Your task to perform on an android device: toggle location history Image 0: 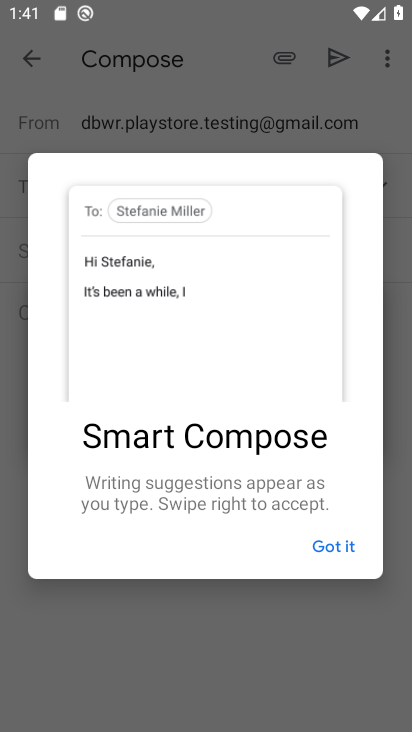
Step 0: press home button
Your task to perform on an android device: toggle location history Image 1: 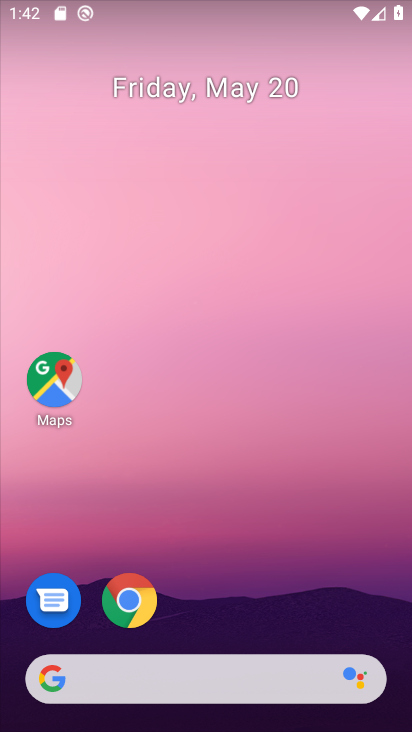
Step 1: drag from (317, 552) to (206, 8)
Your task to perform on an android device: toggle location history Image 2: 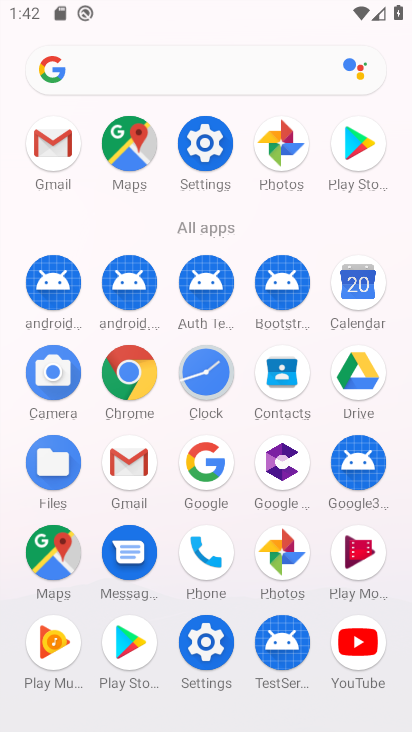
Step 2: click (206, 149)
Your task to perform on an android device: toggle location history Image 3: 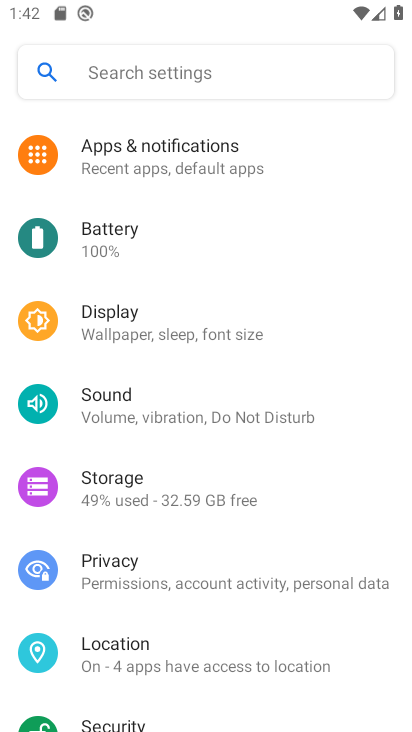
Step 3: click (222, 654)
Your task to perform on an android device: toggle location history Image 4: 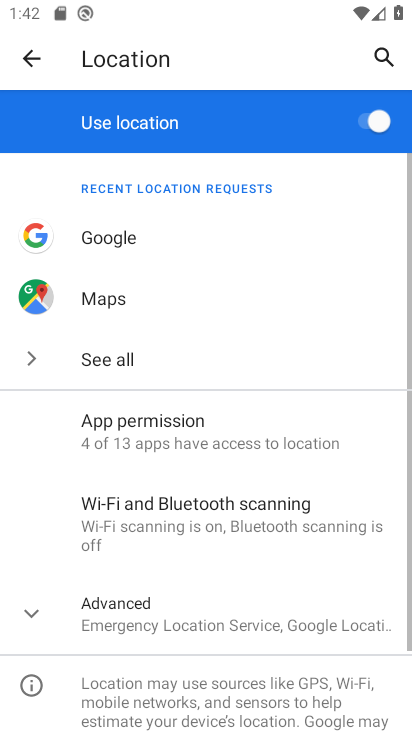
Step 4: click (225, 618)
Your task to perform on an android device: toggle location history Image 5: 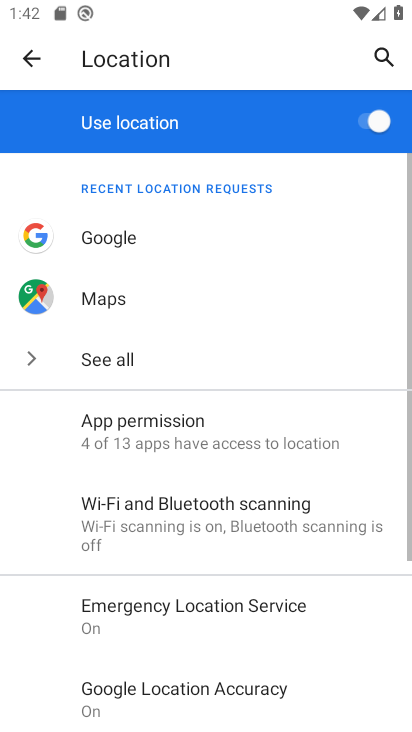
Step 5: drag from (242, 629) to (232, 251)
Your task to perform on an android device: toggle location history Image 6: 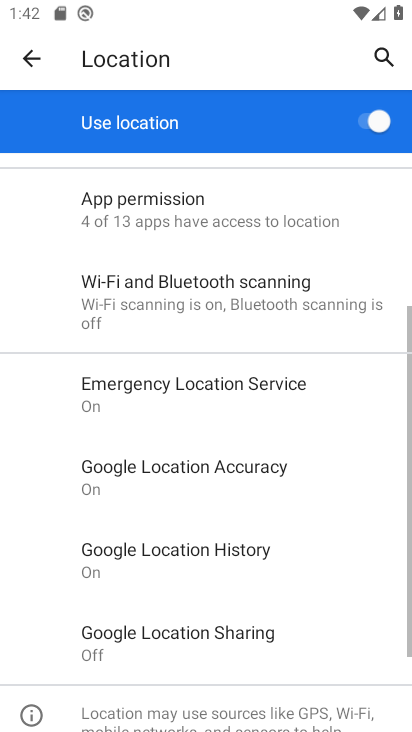
Step 6: click (230, 559)
Your task to perform on an android device: toggle location history Image 7: 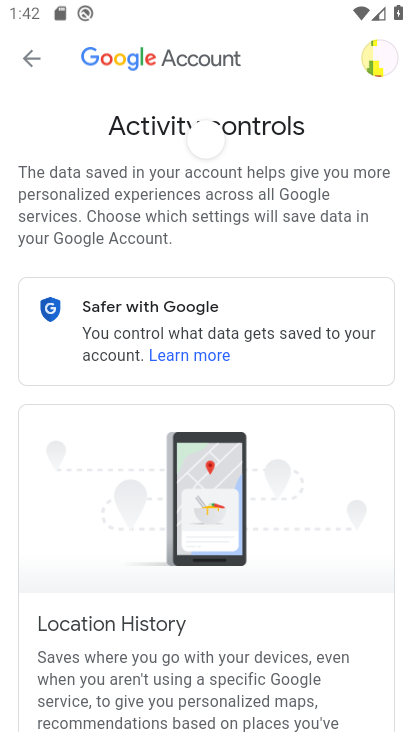
Step 7: drag from (259, 562) to (204, 75)
Your task to perform on an android device: toggle location history Image 8: 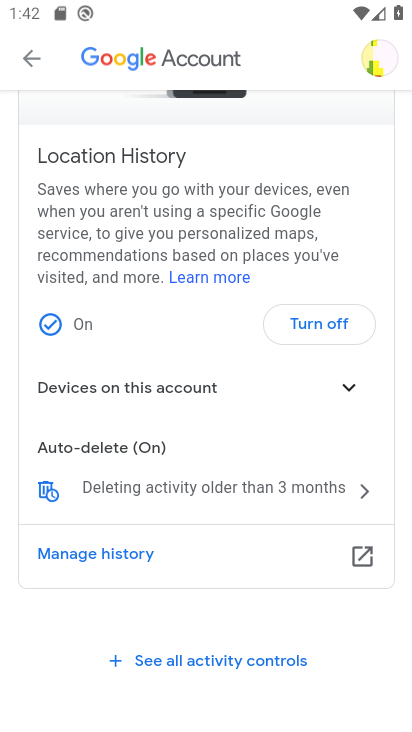
Step 8: click (330, 317)
Your task to perform on an android device: toggle location history Image 9: 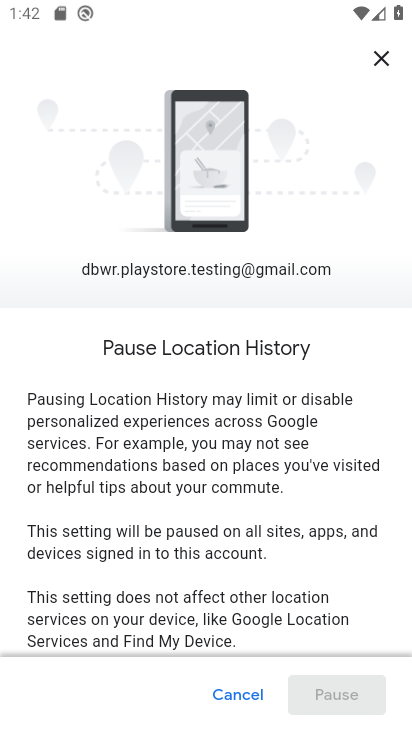
Step 9: drag from (310, 573) to (192, 5)
Your task to perform on an android device: toggle location history Image 10: 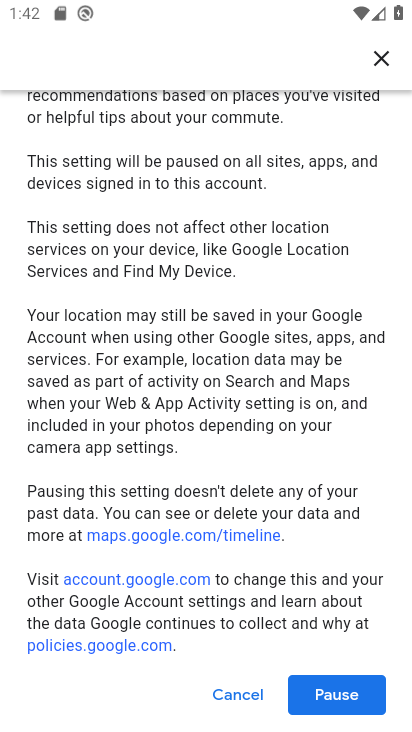
Step 10: click (359, 700)
Your task to perform on an android device: toggle location history Image 11: 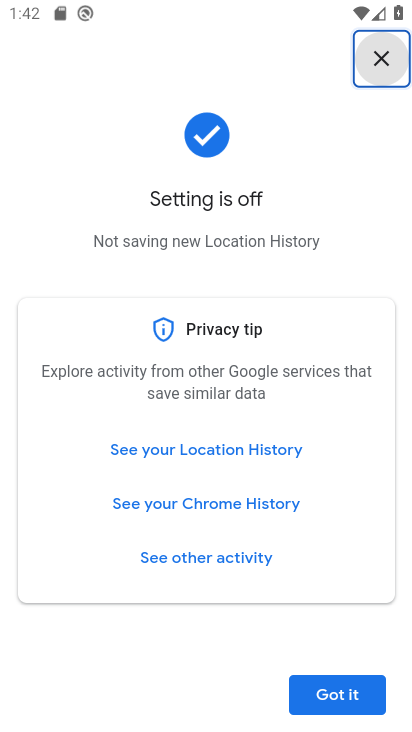
Step 11: click (332, 699)
Your task to perform on an android device: toggle location history Image 12: 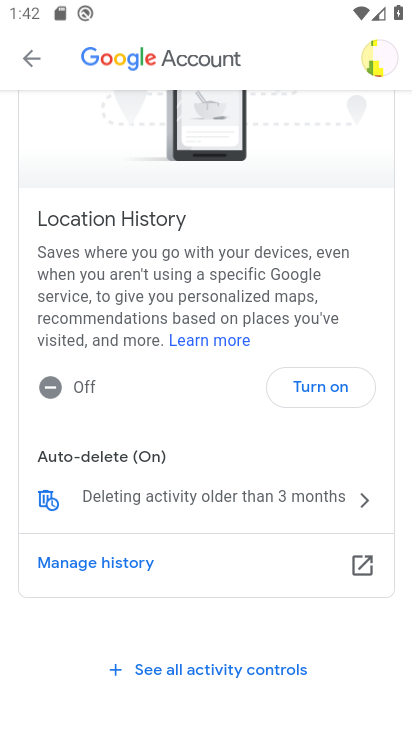
Step 12: task complete